Your task to perform on an android device: check the backup settings in the google photos Image 0: 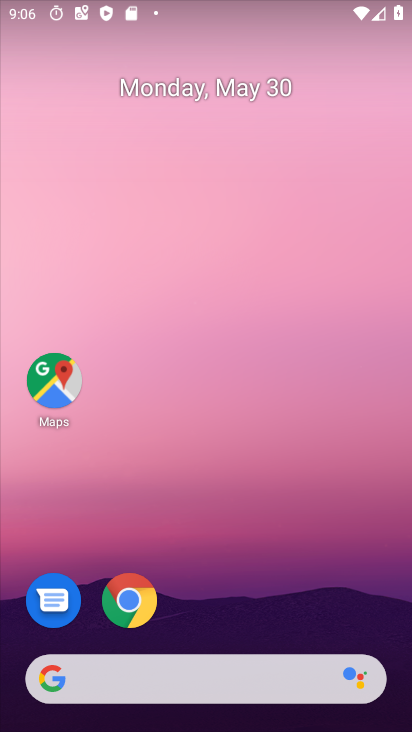
Step 0: drag from (311, 593) to (294, 33)
Your task to perform on an android device: check the backup settings in the google photos Image 1: 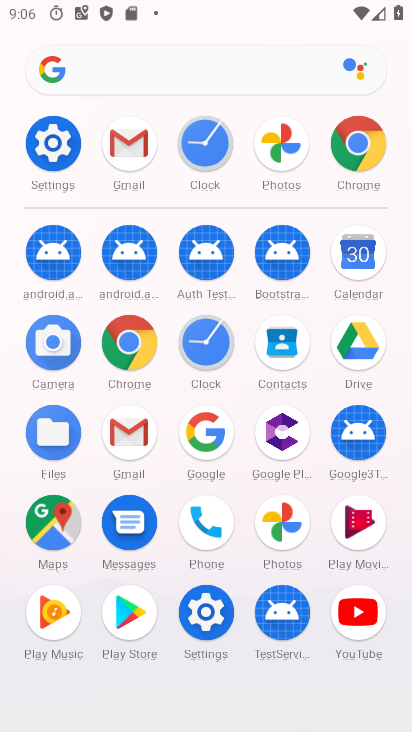
Step 1: drag from (10, 537) to (23, 185)
Your task to perform on an android device: check the backup settings in the google photos Image 2: 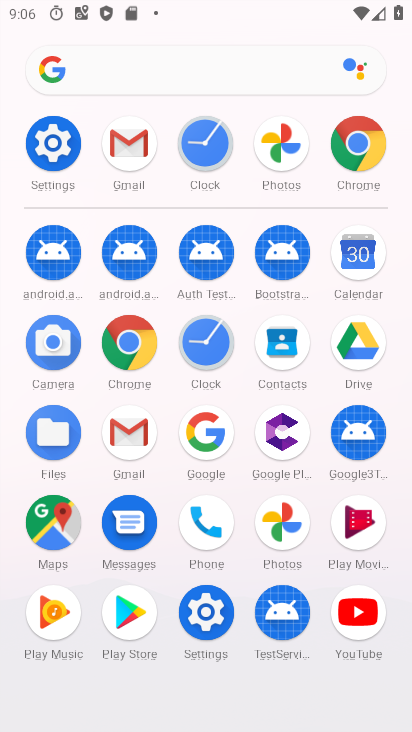
Step 2: click (279, 518)
Your task to perform on an android device: check the backup settings in the google photos Image 3: 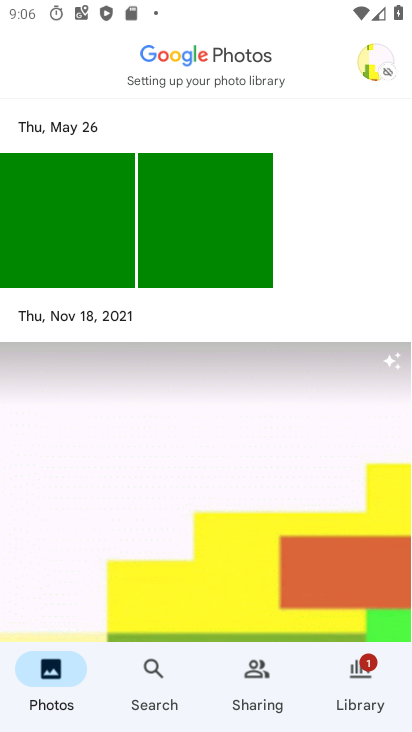
Step 3: click (367, 58)
Your task to perform on an android device: check the backup settings in the google photos Image 4: 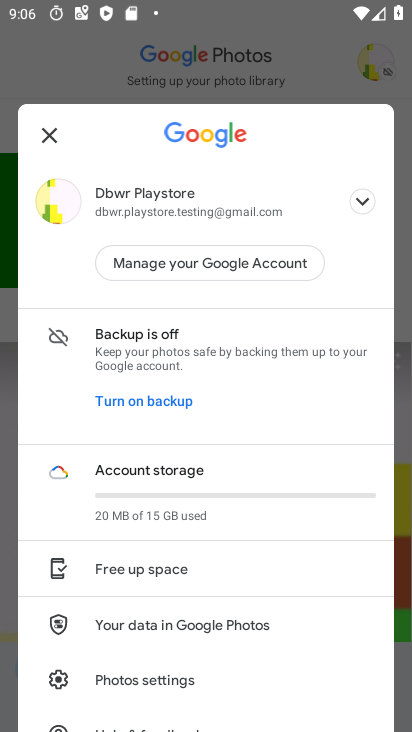
Step 4: click (147, 684)
Your task to perform on an android device: check the backup settings in the google photos Image 5: 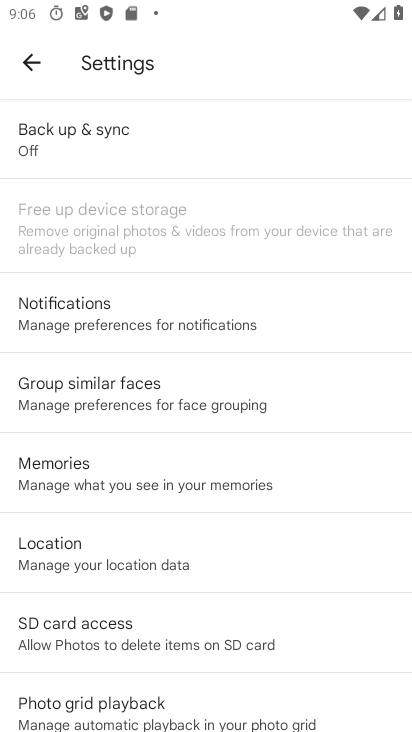
Step 5: drag from (252, 606) to (266, 178)
Your task to perform on an android device: check the backup settings in the google photos Image 6: 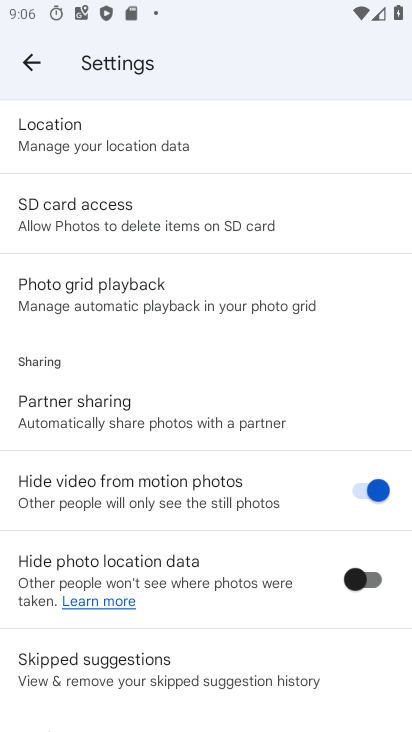
Step 6: drag from (173, 649) to (233, 210)
Your task to perform on an android device: check the backup settings in the google photos Image 7: 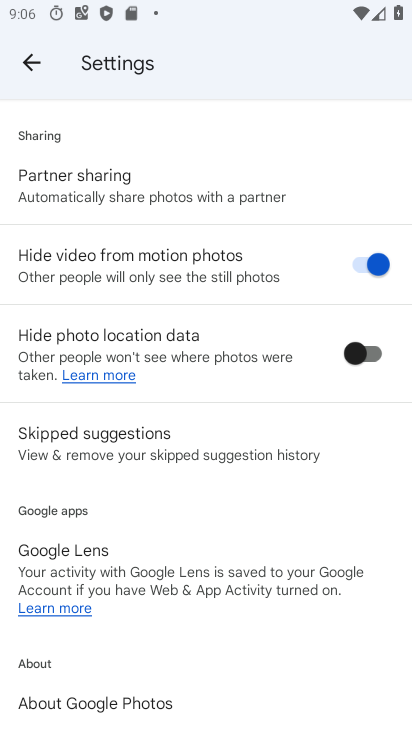
Step 7: drag from (235, 189) to (237, 698)
Your task to perform on an android device: check the backup settings in the google photos Image 8: 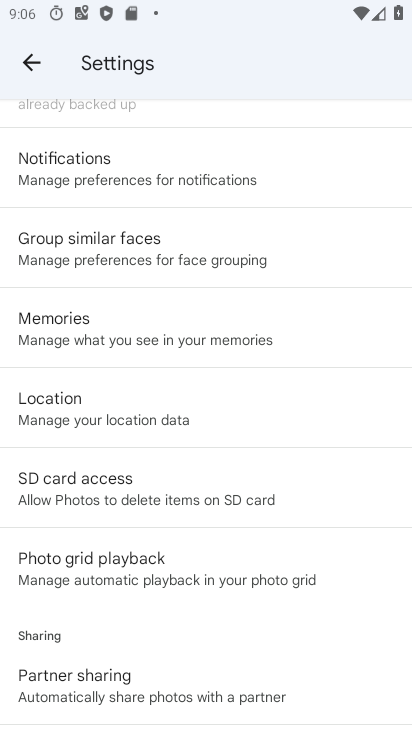
Step 8: drag from (199, 221) to (200, 557)
Your task to perform on an android device: check the backup settings in the google photos Image 9: 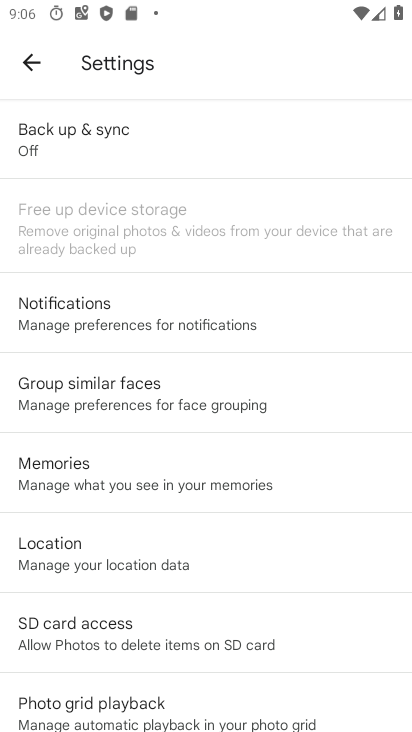
Step 9: click (109, 146)
Your task to perform on an android device: check the backup settings in the google photos Image 10: 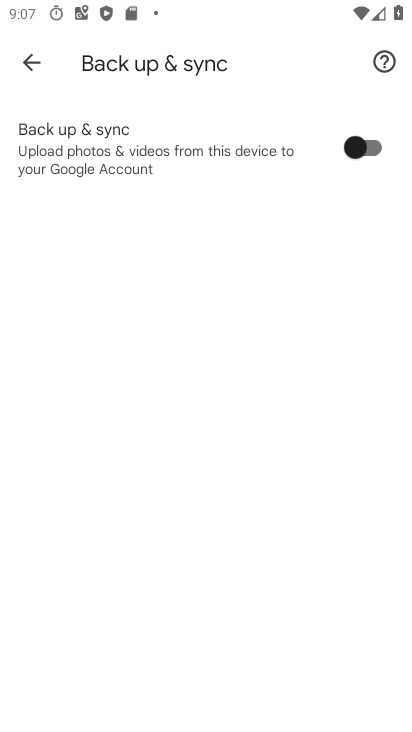
Step 10: click (352, 146)
Your task to perform on an android device: check the backup settings in the google photos Image 11: 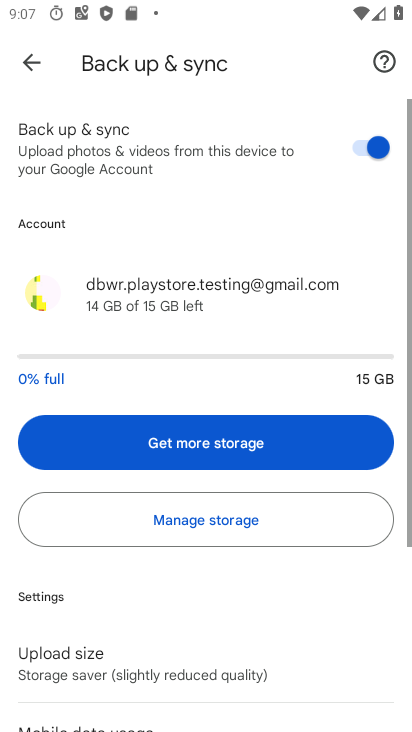
Step 11: task complete